Your task to perform on an android device: open a new tab in the chrome app Image 0: 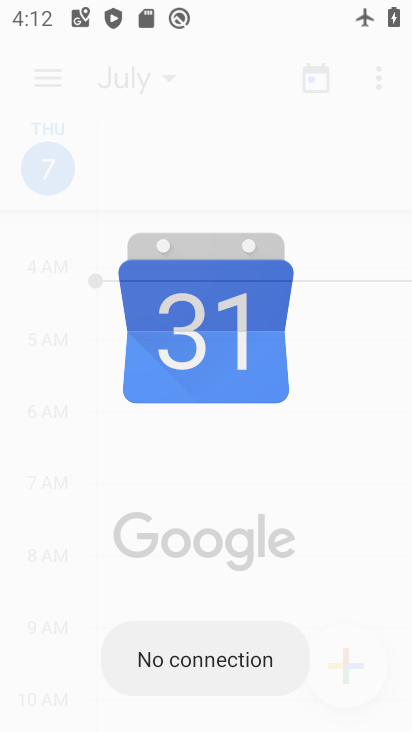
Step 0: drag from (272, 534) to (244, 42)
Your task to perform on an android device: open a new tab in the chrome app Image 1: 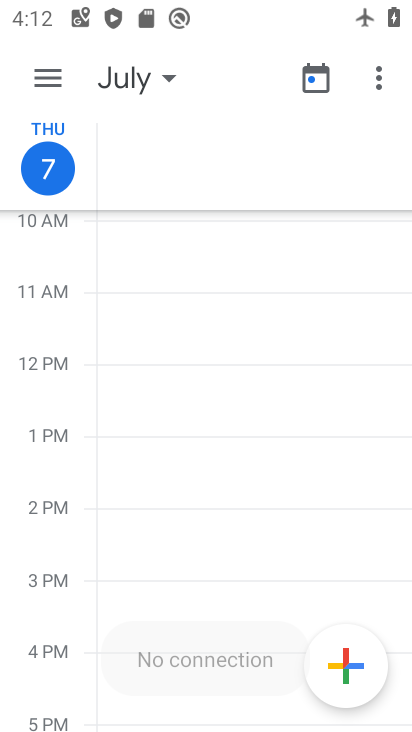
Step 1: press back button
Your task to perform on an android device: open a new tab in the chrome app Image 2: 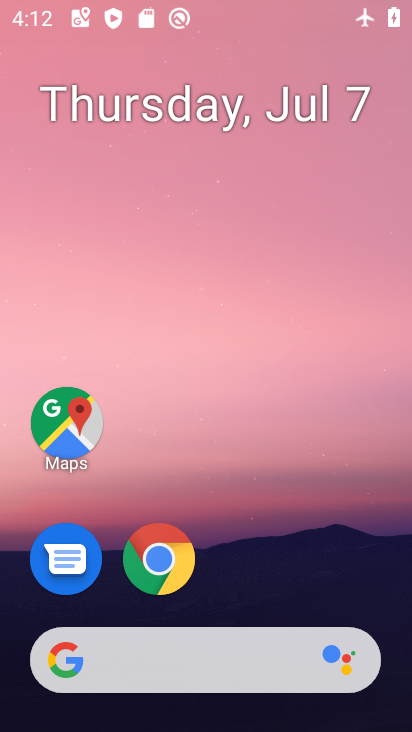
Step 2: drag from (193, 601) to (261, 15)
Your task to perform on an android device: open a new tab in the chrome app Image 3: 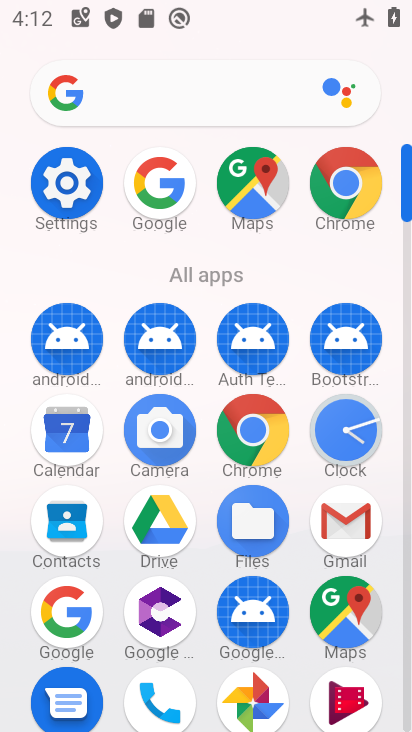
Step 3: click (341, 170)
Your task to perform on an android device: open a new tab in the chrome app Image 4: 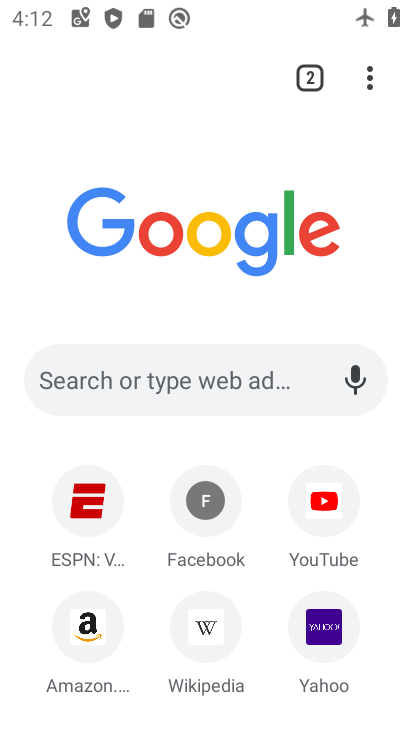
Step 4: task complete